Your task to perform on an android device: empty trash in google photos Image 0: 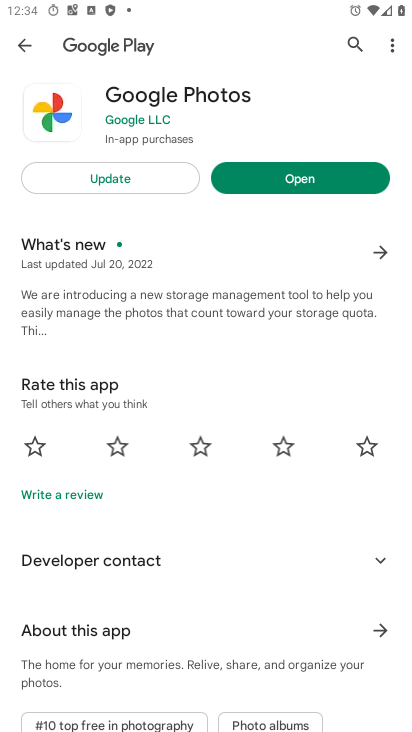
Step 0: press home button
Your task to perform on an android device: empty trash in google photos Image 1: 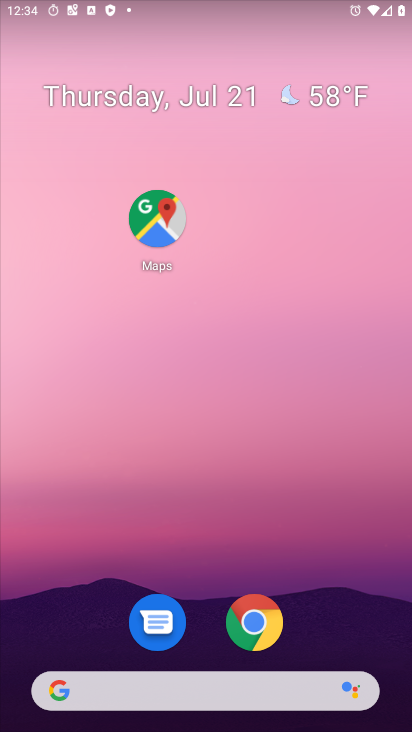
Step 1: drag from (31, 667) to (128, 201)
Your task to perform on an android device: empty trash in google photos Image 2: 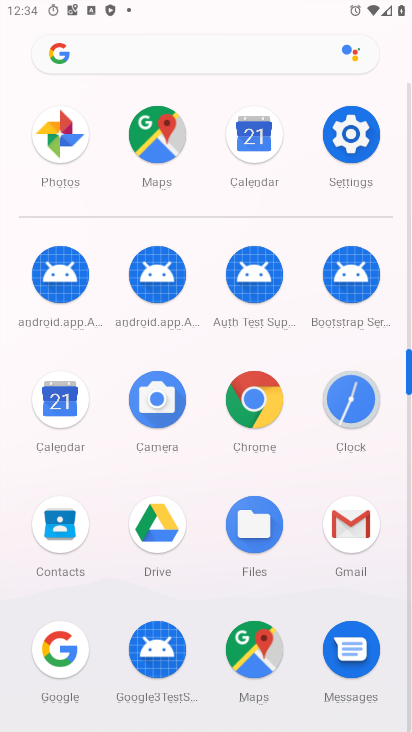
Step 2: click (73, 151)
Your task to perform on an android device: empty trash in google photos Image 3: 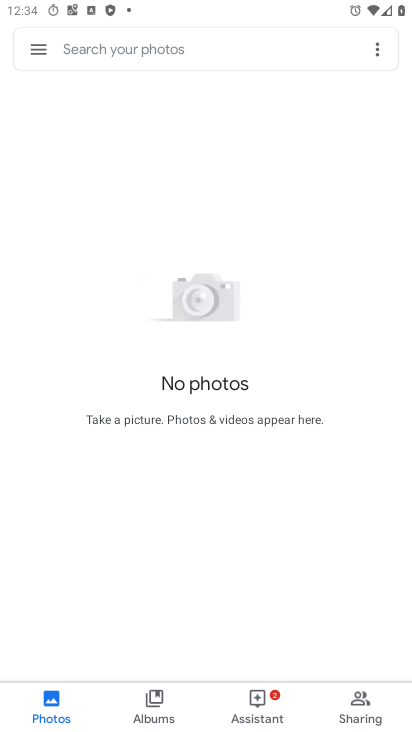
Step 3: click (42, 52)
Your task to perform on an android device: empty trash in google photos Image 4: 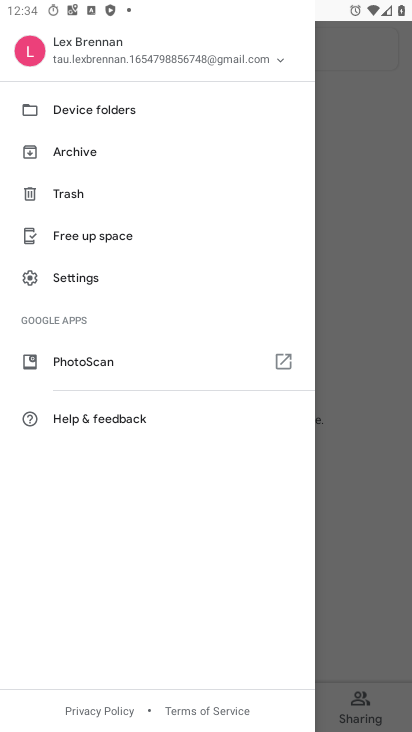
Step 4: click (64, 202)
Your task to perform on an android device: empty trash in google photos Image 5: 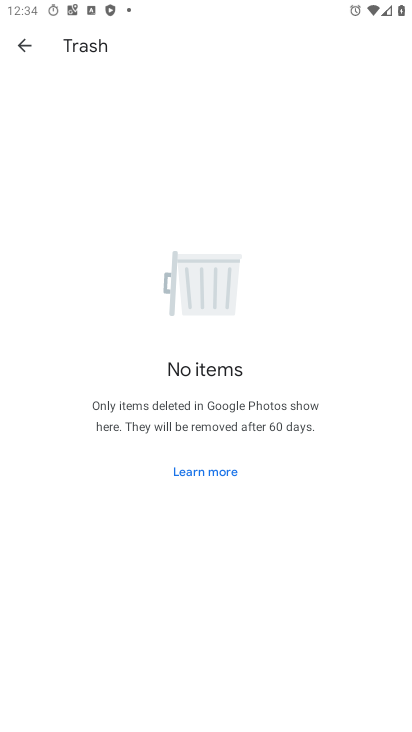
Step 5: task complete